Your task to perform on an android device: Open the Play Movies app and select the watchlist tab. Image 0: 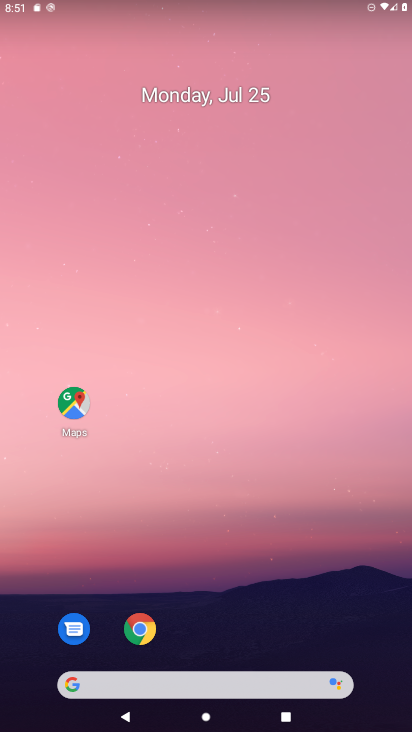
Step 0: drag from (309, 660) to (330, 6)
Your task to perform on an android device: Open the Play Movies app and select the watchlist tab. Image 1: 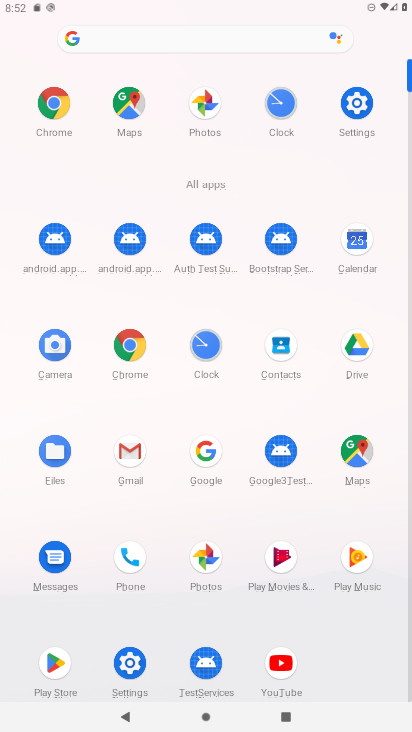
Step 1: click (279, 564)
Your task to perform on an android device: Open the Play Movies app and select the watchlist tab. Image 2: 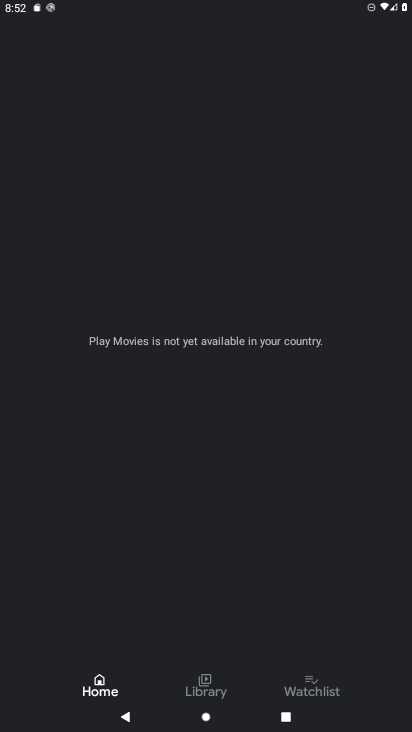
Step 2: click (314, 688)
Your task to perform on an android device: Open the Play Movies app and select the watchlist tab. Image 3: 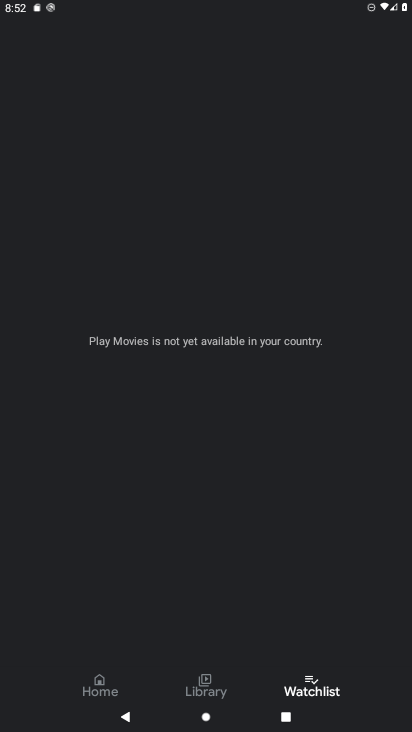
Step 3: task complete